Your task to perform on an android device: install app "Grab" Image 0: 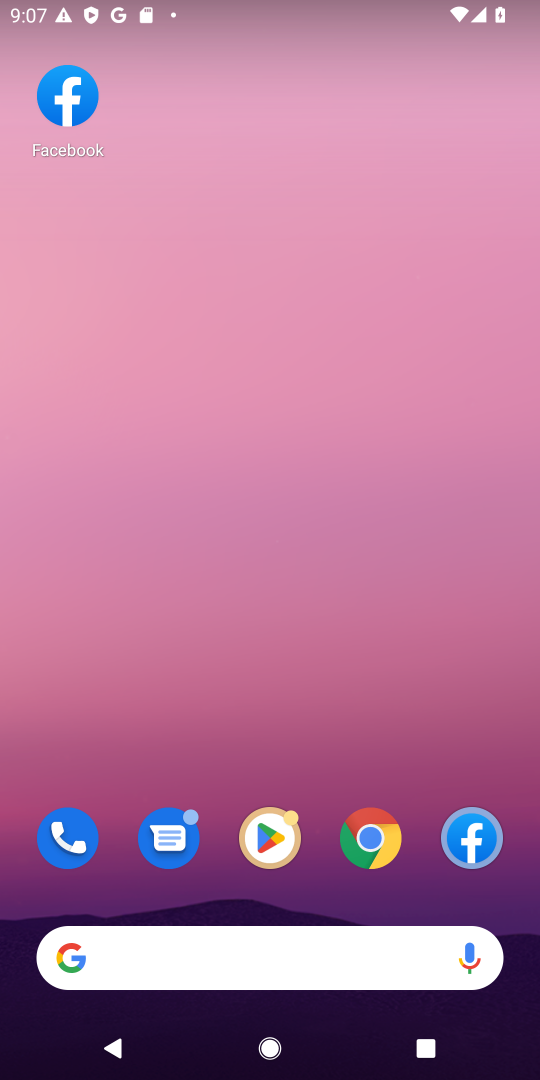
Step 0: click (271, 832)
Your task to perform on an android device: install app "Grab" Image 1: 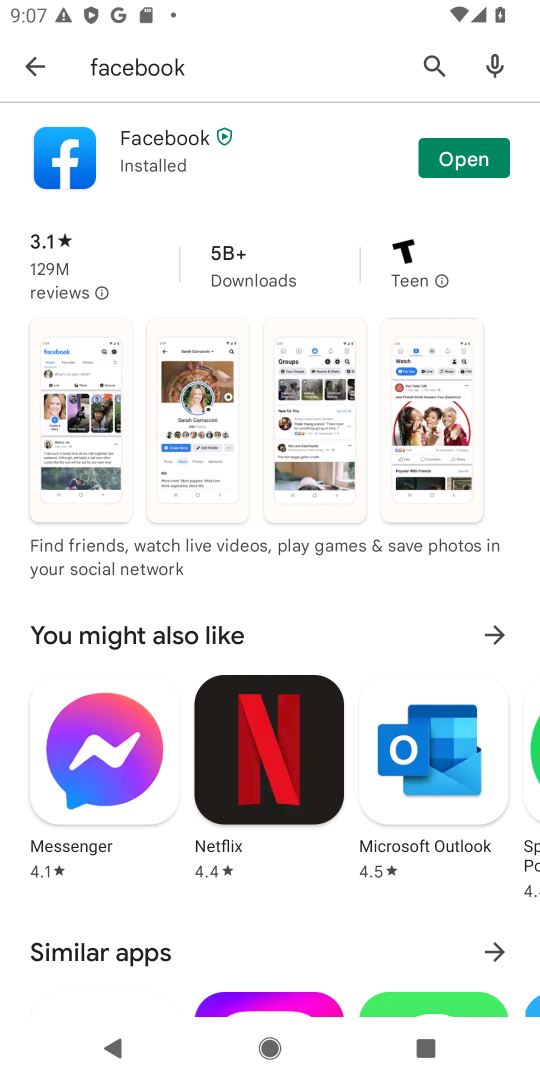
Step 1: click (436, 69)
Your task to perform on an android device: install app "Grab" Image 2: 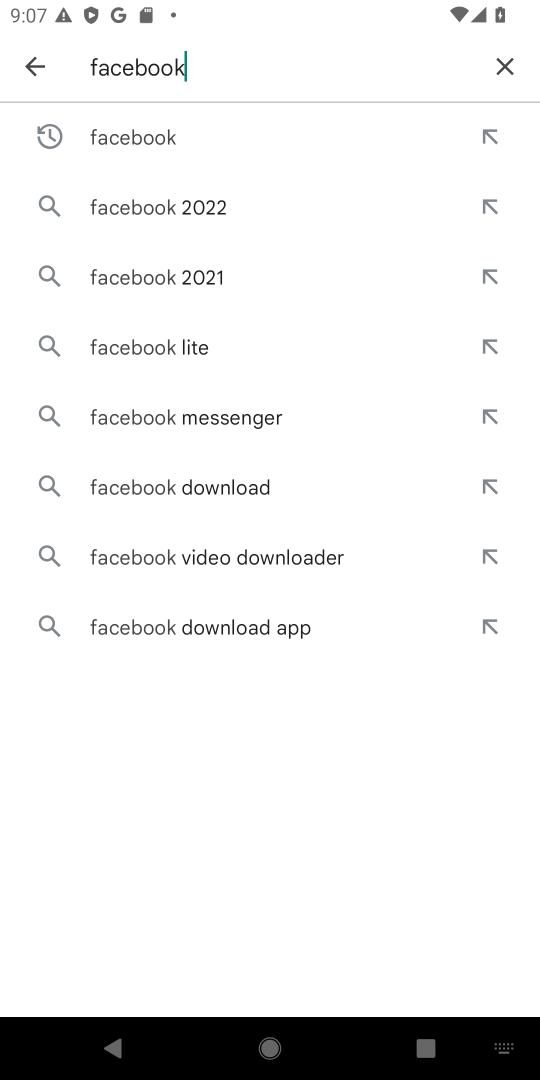
Step 2: click (502, 69)
Your task to perform on an android device: install app "Grab" Image 3: 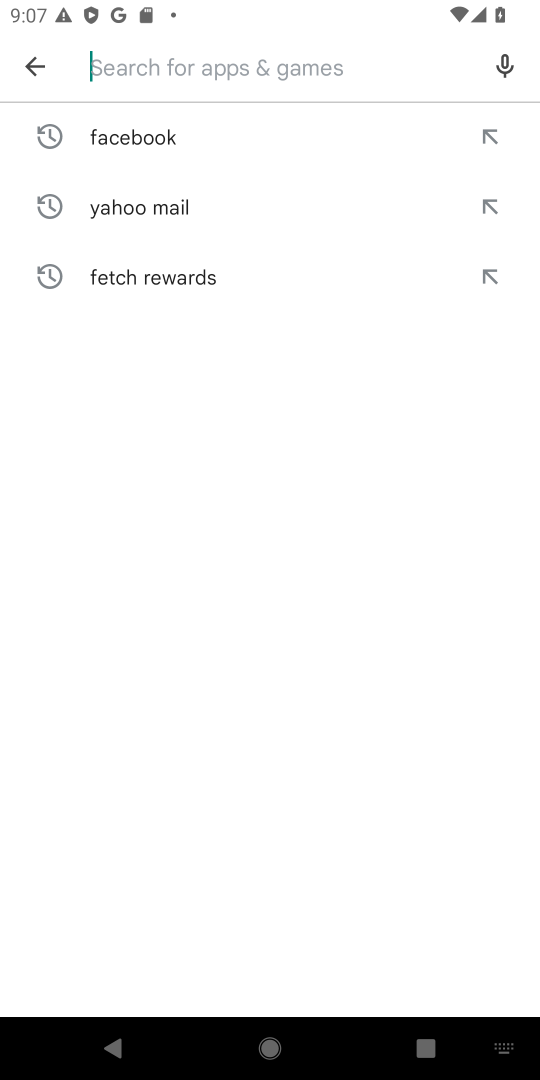
Step 3: type "Grab"
Your task to perform on an android device: install app "Grab" Image 4: 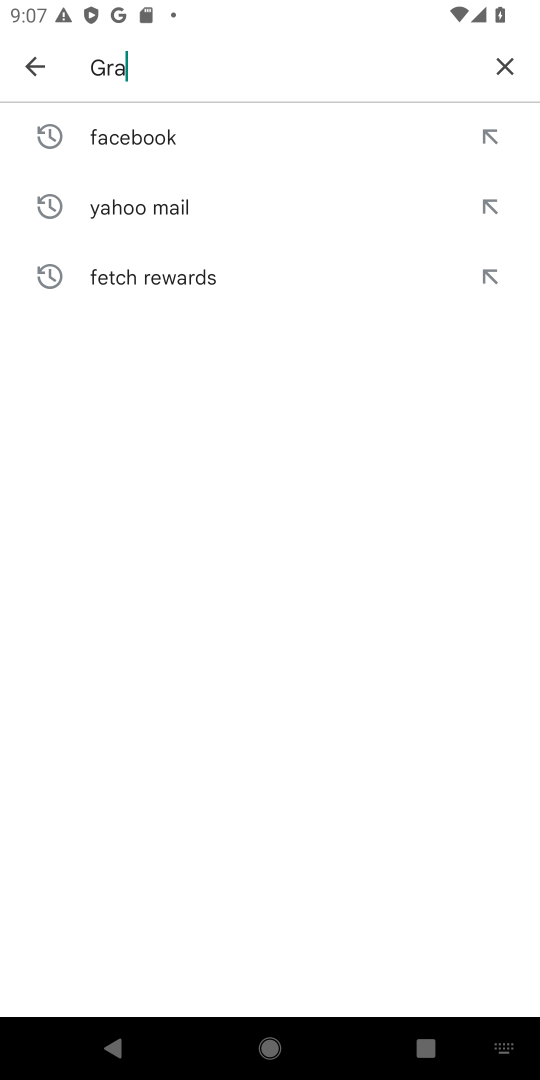
Step 4: type ""
Your task to perform on an android device: install app "Grab" Image 5: 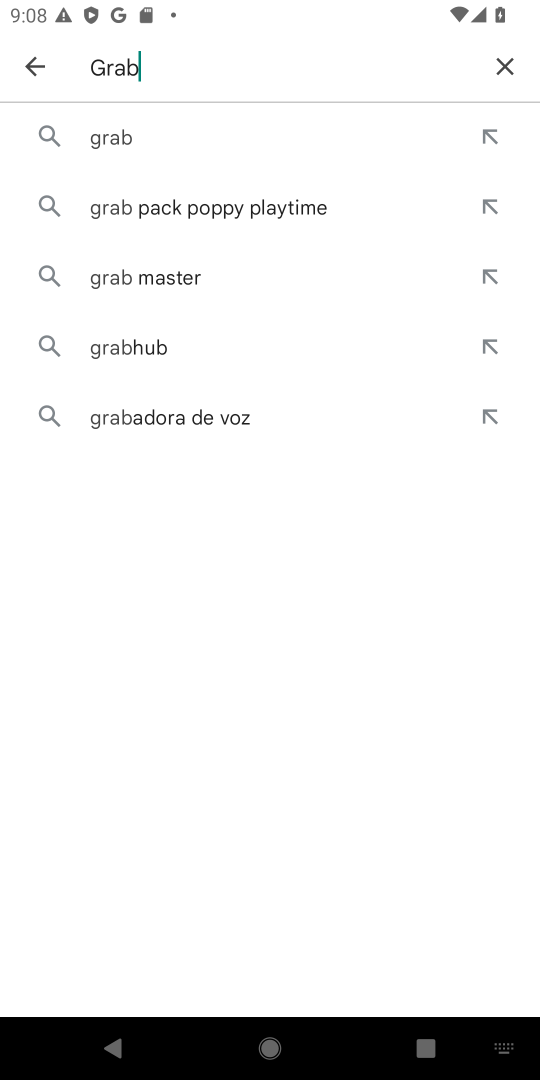
Step 5: press home button
Your task to perform on an android device: install app "Grab" Image 6: 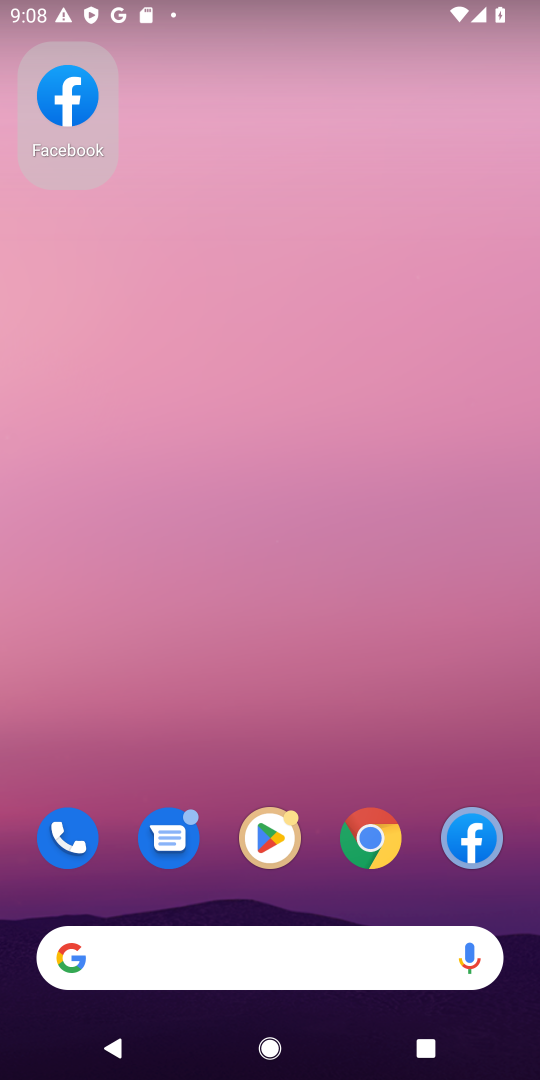
Step 6: click (257, 832)
Your task to perform on an android device: install app "Grab" Image 7: 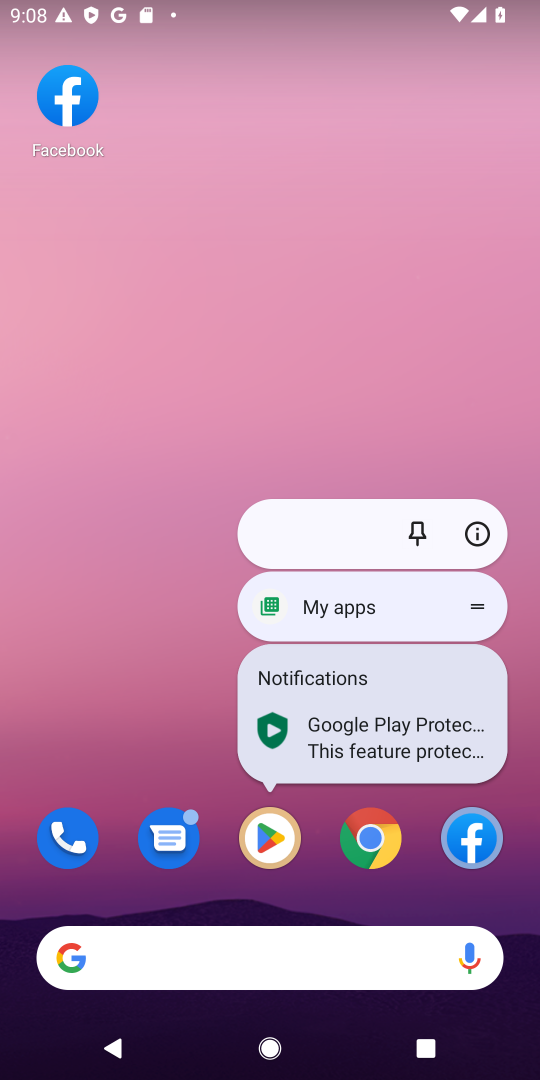
Step 7: click (257, 832)
Your task to perform on an android device: install app "Grab" Image 8: 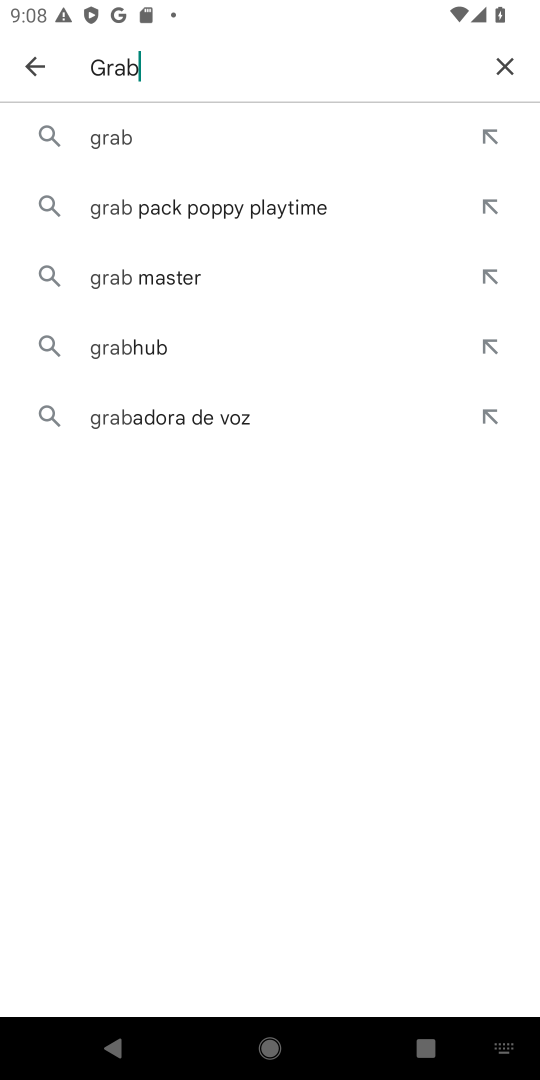
Step 8: click (234, 132)
Your task to perform on an android device: install app "Grab" Image 9: 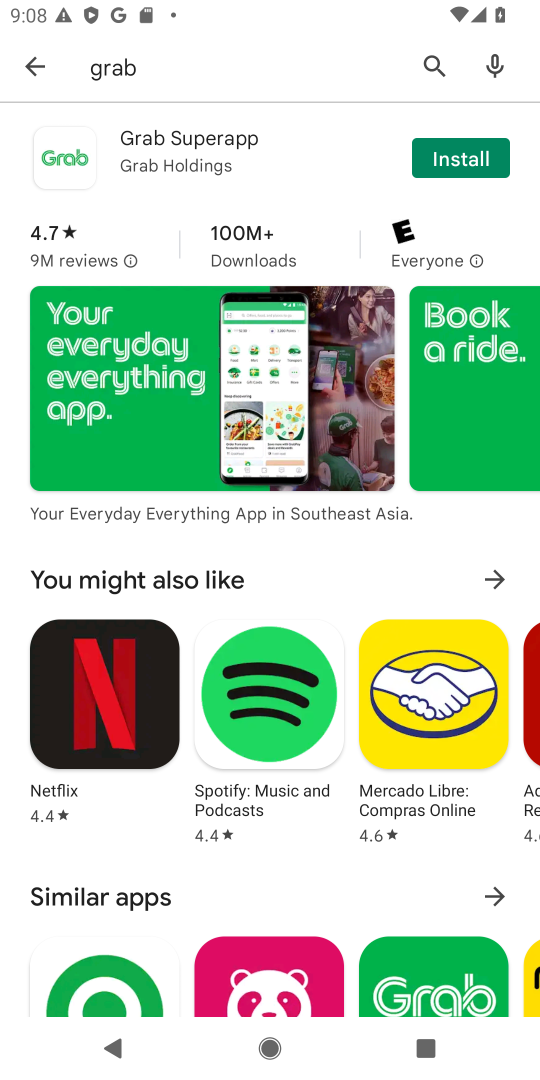
Step 9: click (475, 163)
Your task to perform on an android device: install app "Grab" Image 10: 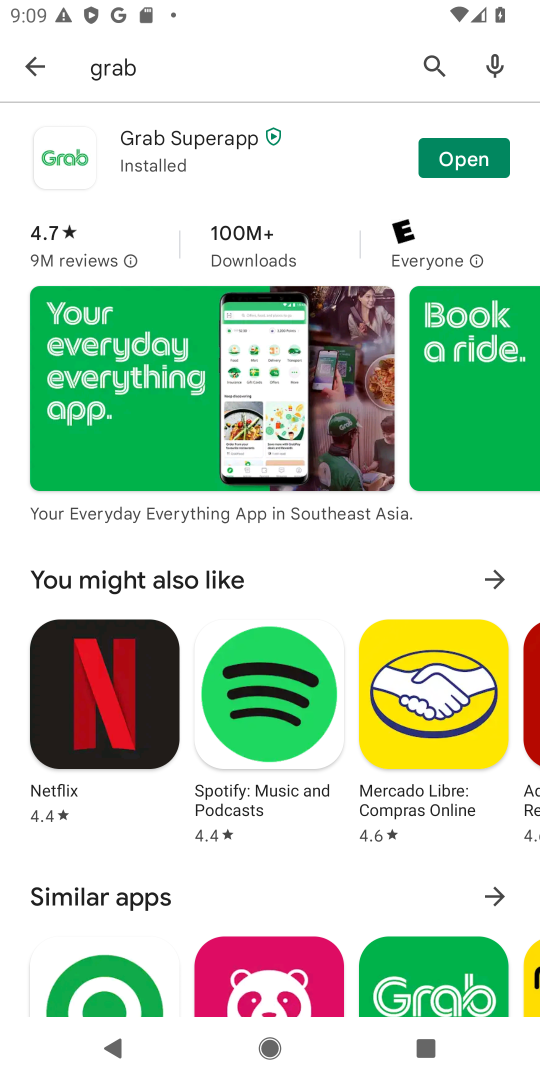
Step 10: task complete